Your task to perform on an android device: turn off wifi Image 0: 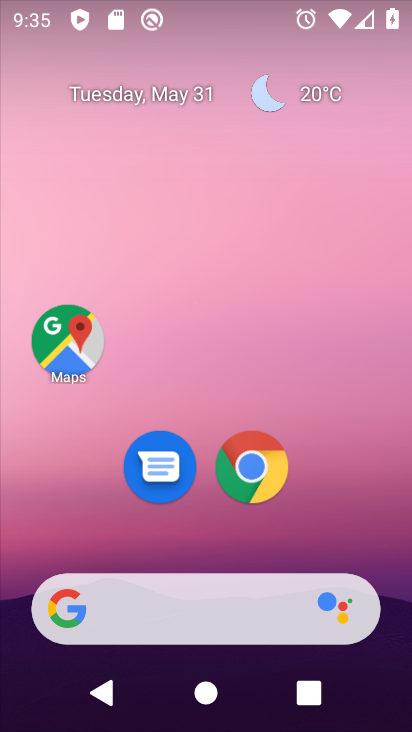
Step 0: drag from (215, 550) to (240, 99)
Your task to perform on an android device: turn off wifi Image 1: 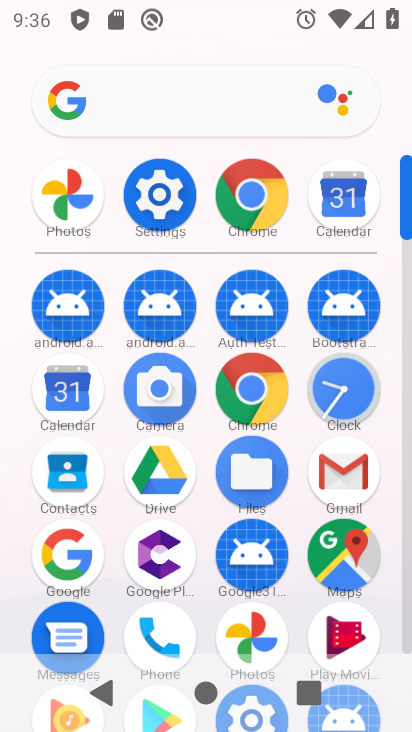
Step 1: click (155, 173)
Your task to perform on an android device: turn off wifi Image 2: 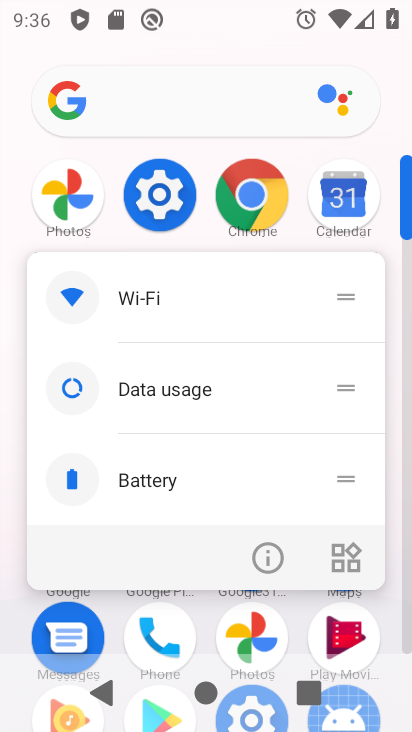
Step 2: click (272, 546)
Your task to perform on an android device: turn off wifi Image 3: 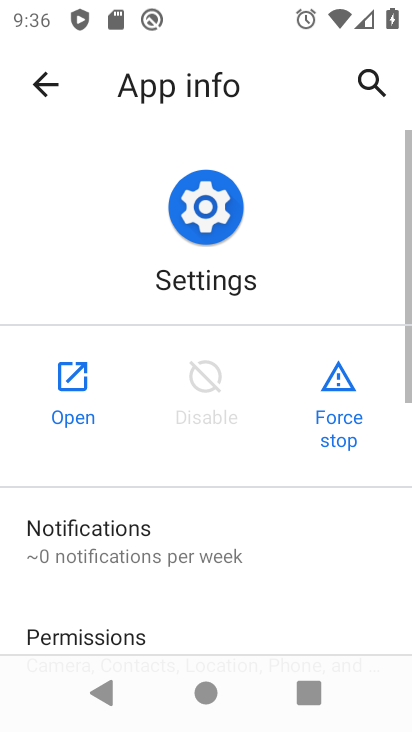
Step 3: click (69, 375)
Your task to perform on an android device: turn off wifi Image 4: 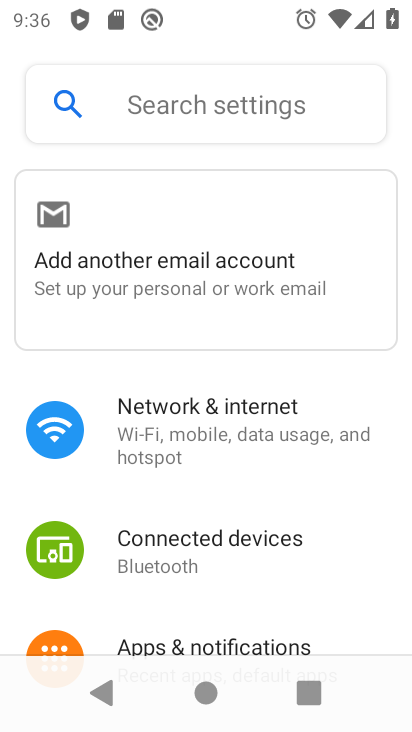
Step 4: drag from (229, 543) to (229, 88)
Your task to perform on an android device: turn off wifi Image 5: 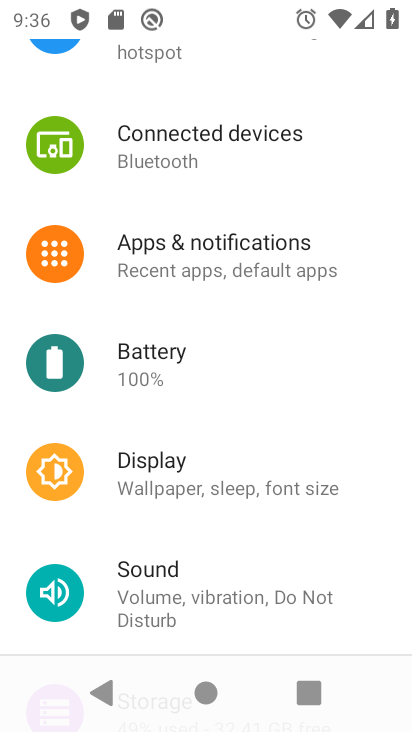
Step 5: drag from (239, 588) to (264, 284)
Your task to perform on an android device: turn off wifi Image 6: 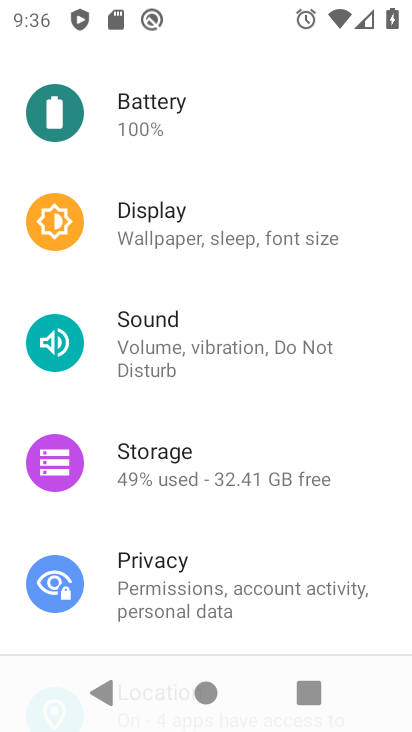
Step 6: drag from (226, 242) to (190, 643)
Your task to perform on an android device: turn off wifi Image 7: 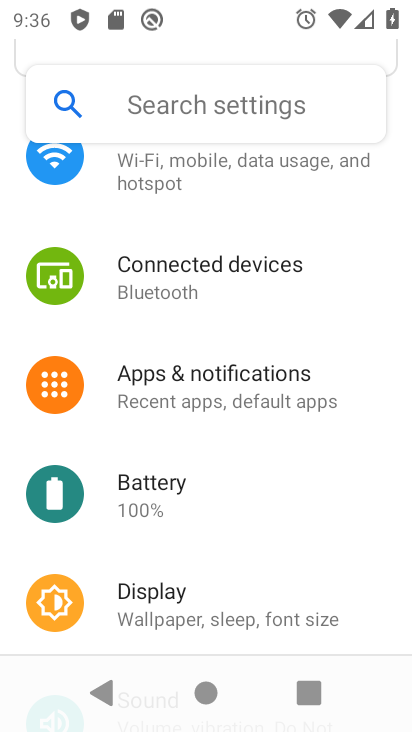
Step 7: drag from (241, 231) to (235, 722)
Your task to perform on an android device: turn off wifi Image 8: 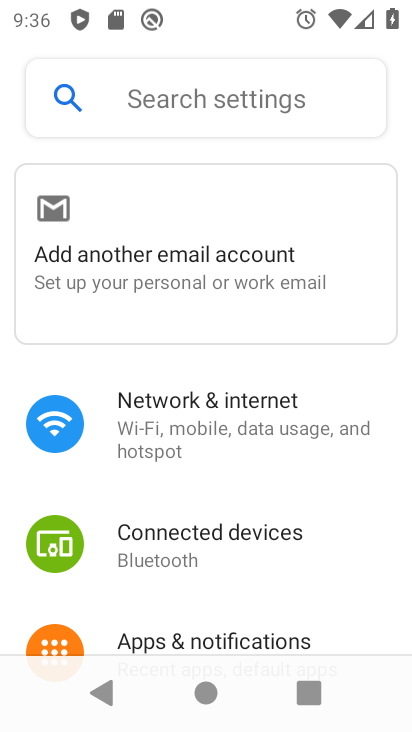
Step 8: click (204, 438)
Your task to perform on an android device: turn off wifi Image 9: 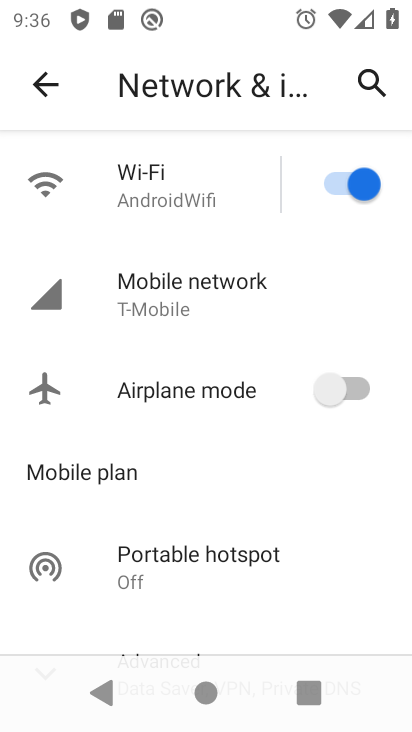
Step 9: click (209, 179)
Your task to perform on an android device: turn off wifi Image 10: 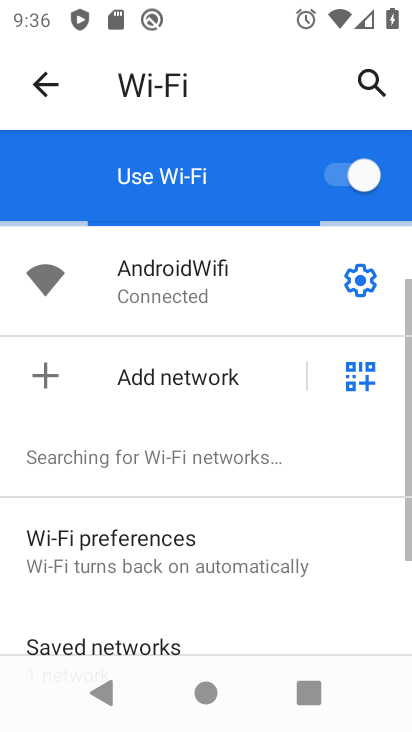
Step 10: drag from (238, 592) to (268, 151)
Your task to perform on an android device: turn off wifi Image 11: 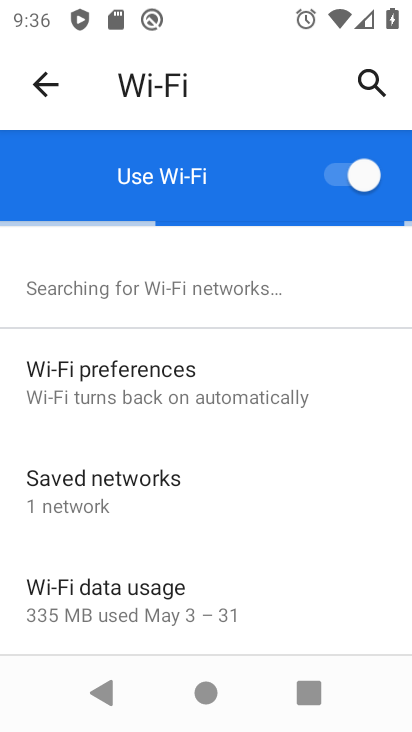
Step 11: drag from (180, 297) to (228, 726)
Your task to perform on an android device: turn off wifi Image 12: 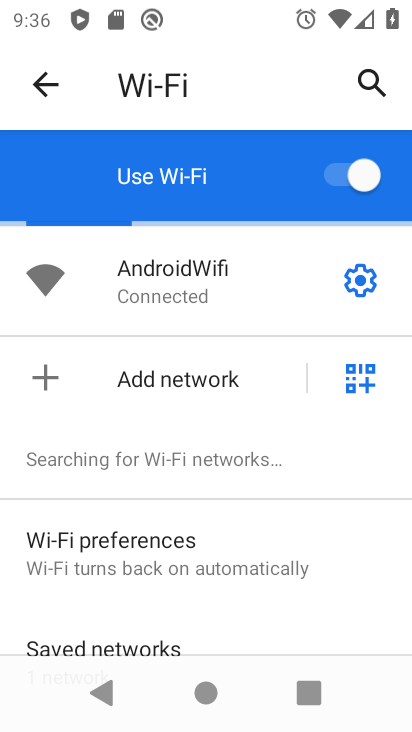
Step 12: click (361, 176)
Your task to perform on an android device: turn off wifi Image 13: 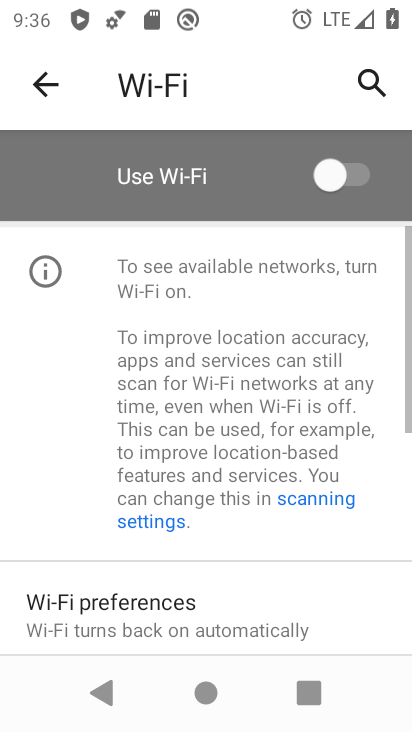
Step 13: task complete